Your task to perform on an android device: check battery use Image 0: 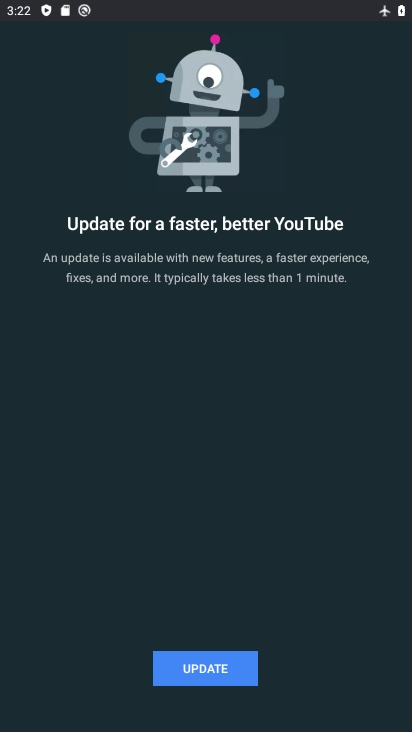
Step 0: drag from (262, 430) to (261, 159)
Your task to perform on an android device: check battery use Image 1: 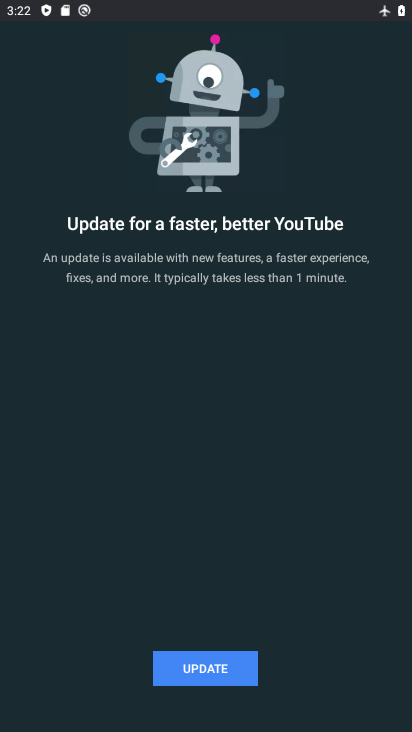
Step 1: press home button
Your task to perform on an android device: check battery use Image 2: 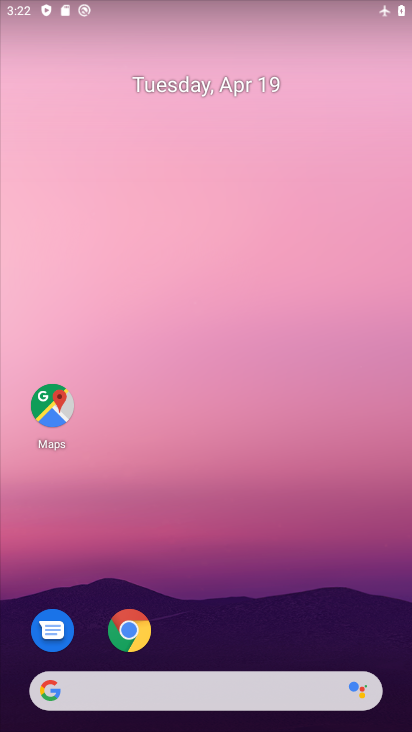
Step 2: drag from (284, 543) to (298, 78)
Your task to perform on an android device: check battery use Image 3: 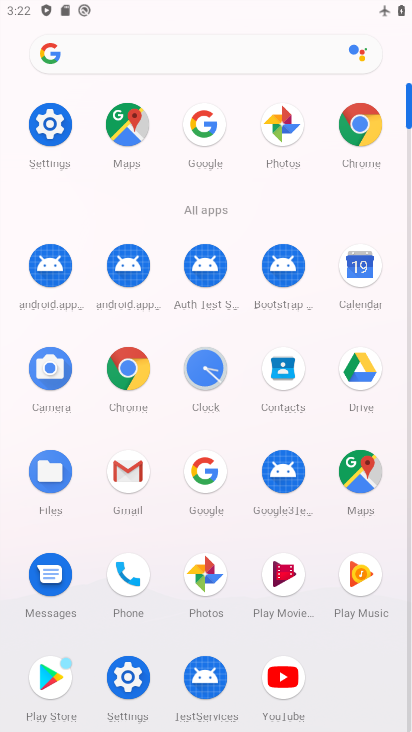
Step 3: click (54, 125)
Your task to perform on an android device: check battery use Image 4: 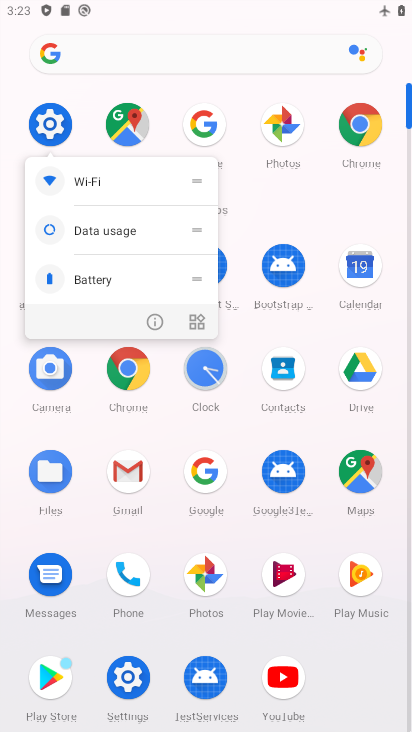
Step 4: click (54, 118)
Your task to perform on an android device: check battery use Image 5: 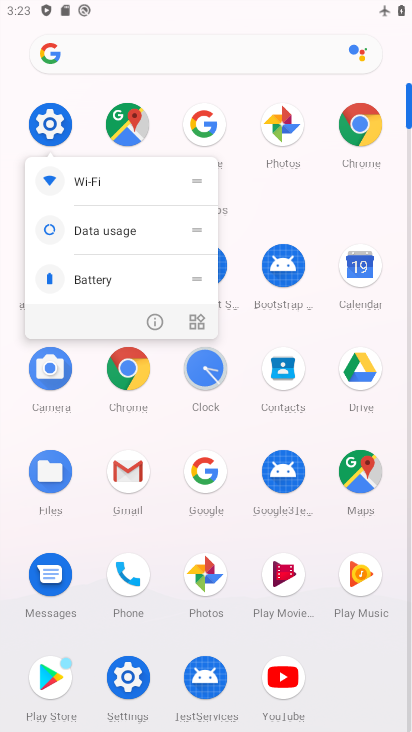
Step 5: click (54, 120)
Your task to perform on an android device: check battery use Image 6: 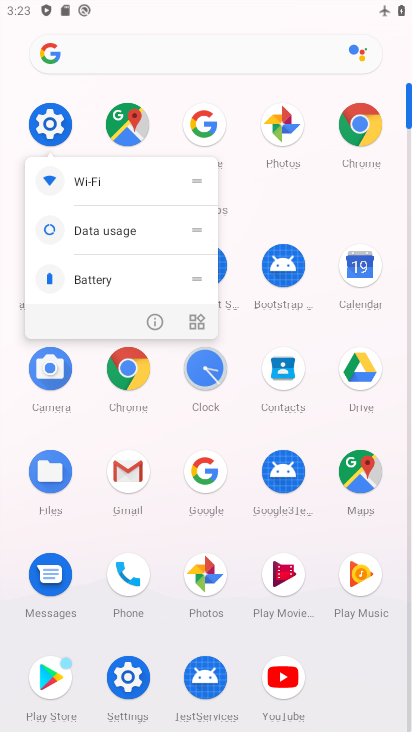
Step 6: click (54, 119)
Your task to perform on an android device: check battery use Image 7: 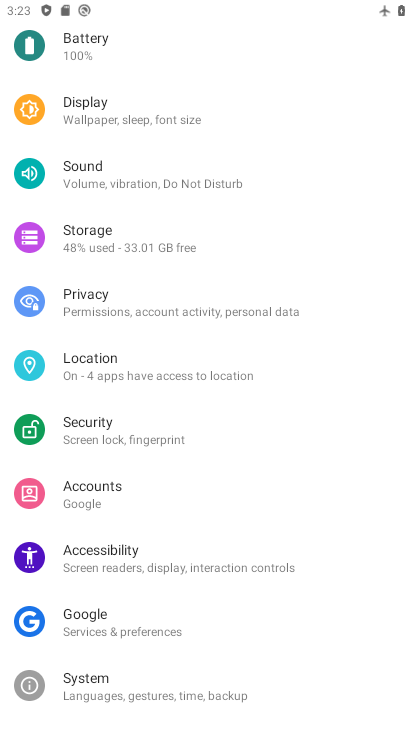
Step 7: click (118, 243)
Your task to perform on an android device: check battery use Image 8: 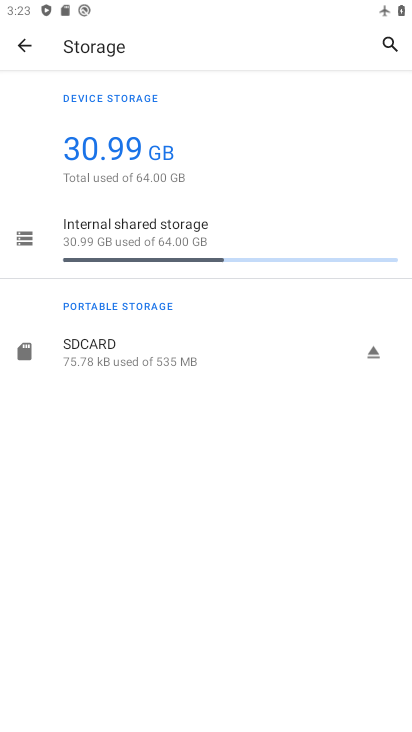
Step 8: click (107, 238)
Your task to perform on an android device: check battery use Image 9: 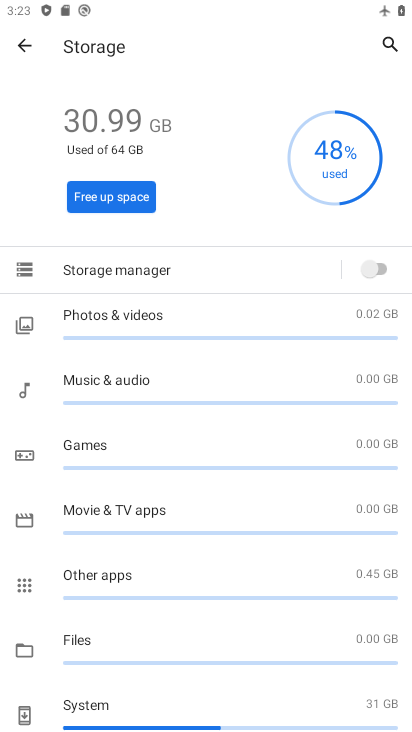
Step 9: task complete